Your task to perform on an android device: Go to privacy settings Image 0: 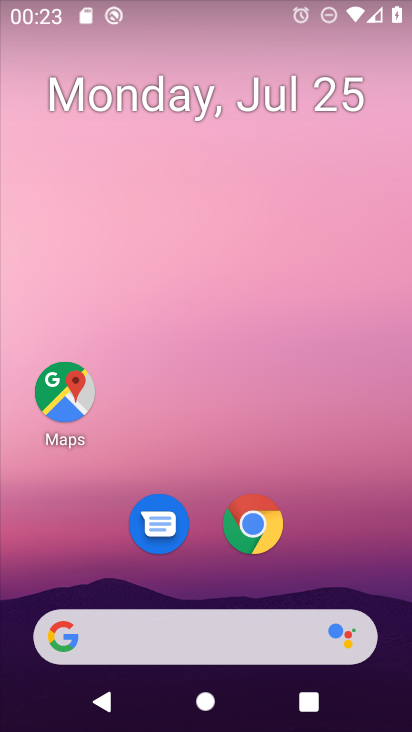
Step 0: drag from (187, 632) to (365, 85)
Your task to perform on an android device: Go to privacy settings Image 1: 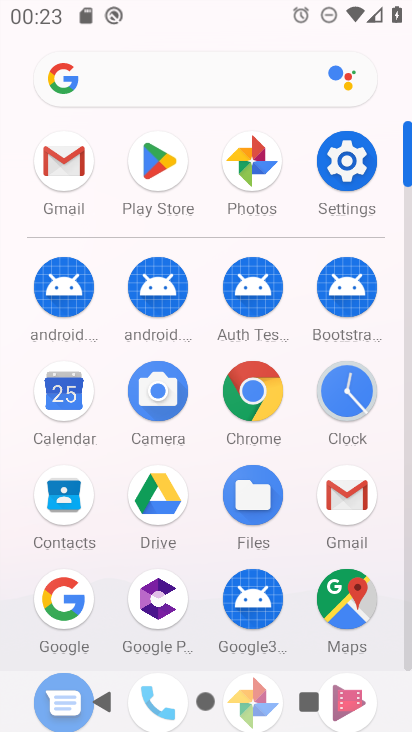
Step 1: drag from (205, 616) to (360, 217)
Your task to perform on an android device: Go to privacy settings Image 2: 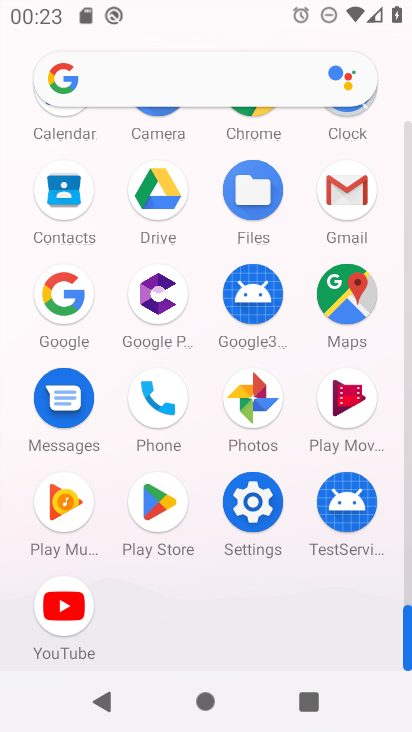
Step 2: click (249, 515)
Your task to perform on an android device: Go to privacy settings Image 3: 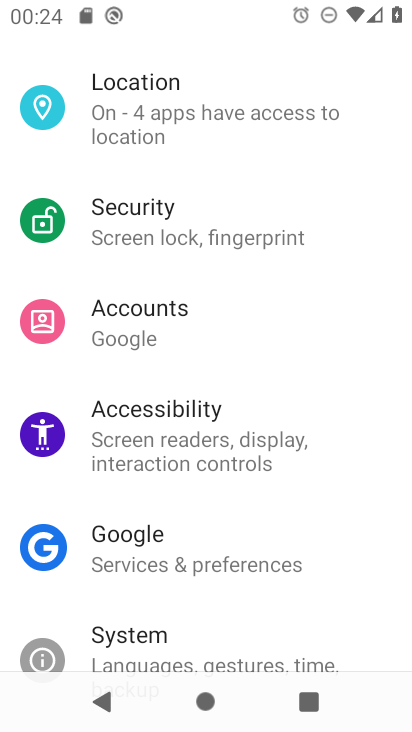
Step 3: drag from (342, 346) to (249, 647)
Your task to perform on an android device: Go to privacy settings Image 4: 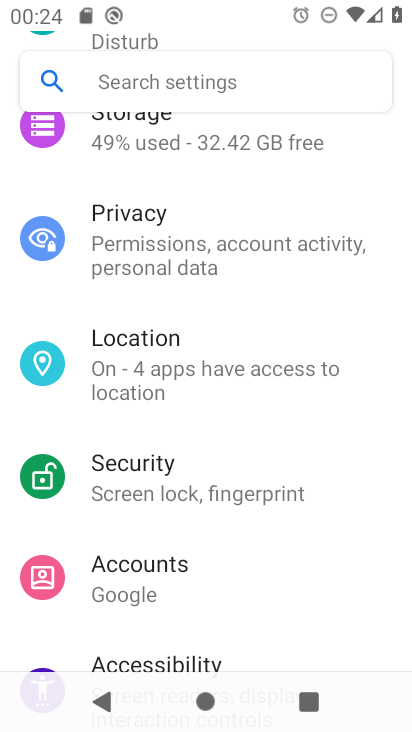
Step 4: click (154, 239)
Your task to perform on an android device: Go to privacy settings Image 5: 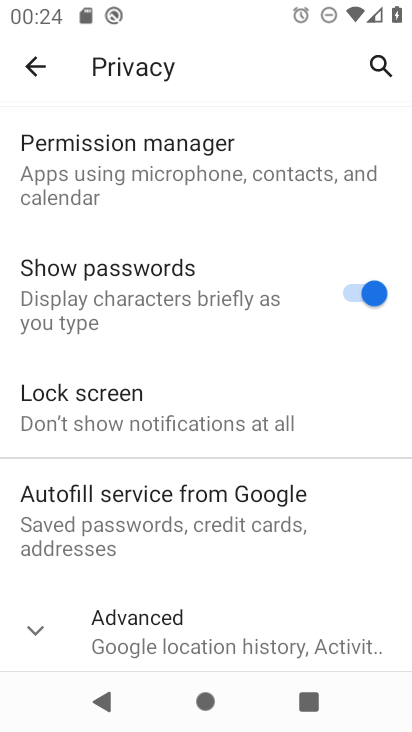
Step 5: task complete